Your task to perform on an android device: toggle show notifications on the lock screen Image 0: 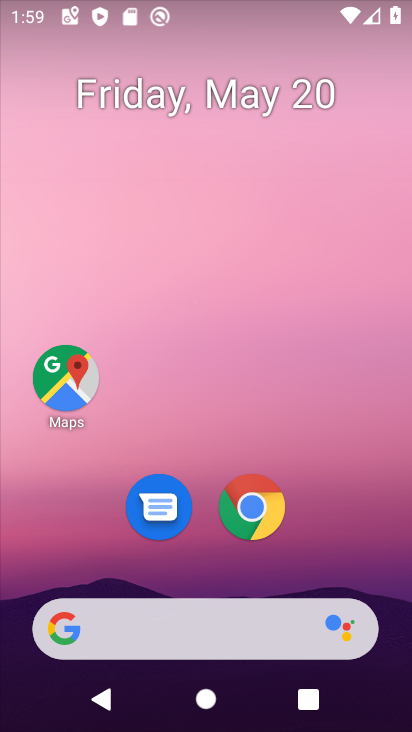
Step 0: drag from (221, 717) to (227, 241)
Your task to perform on an android device: toggle show notifications on the lock screen Image 1: 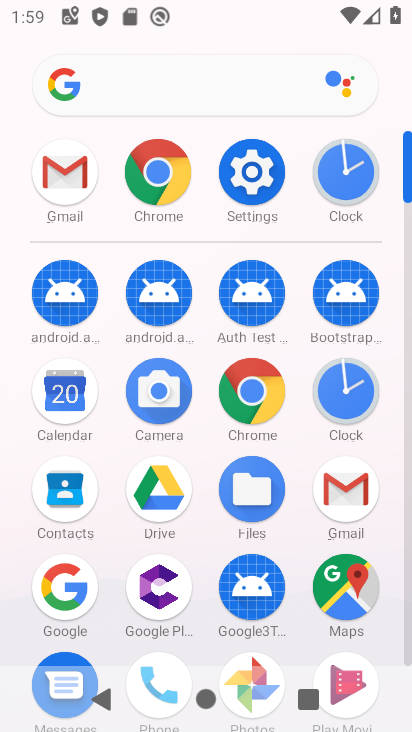
Step 1: click (250, 168)
Your task to perform on an android device: toggle show notifications on the lock screen Image 2: 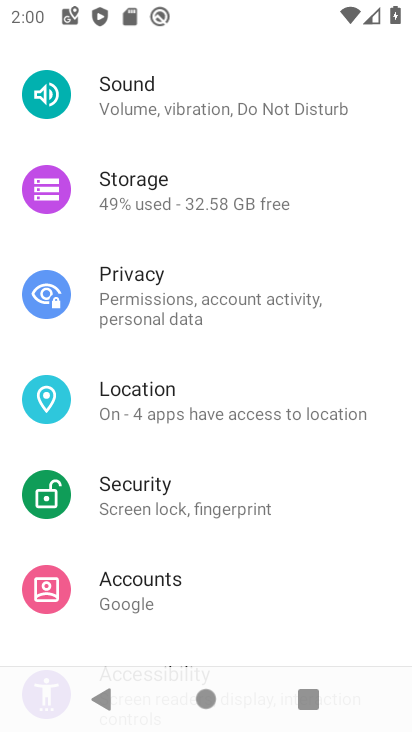
Step 2: drag from (213, 239) to (237, 646)
Your task to perform on an android device: toggle show notifications on the lock screen Image 3: 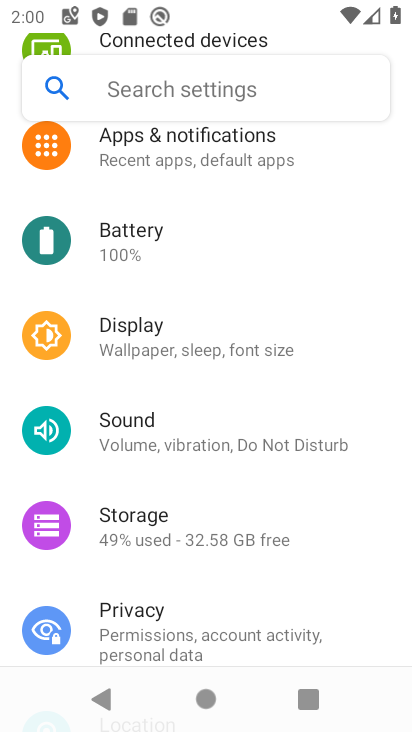
Step 3: click (210, 156)
Your task to perform on an android device: toggle show notifications on the lock screen Image 4: 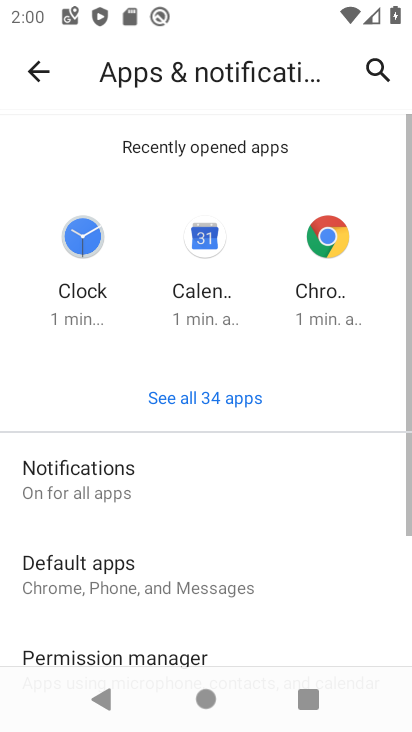
Step 4: click (86, 475)
Your task to perform on an android device: toggle show notifications on the lock screen Image 5: 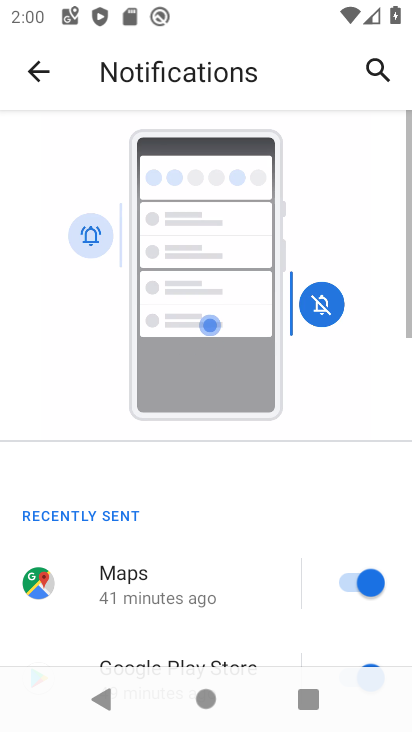
Step 5: drag from (191, 611) to (196, 270)
Your task to perform on an android device: toggle show notifications on the lock screen Image 6: 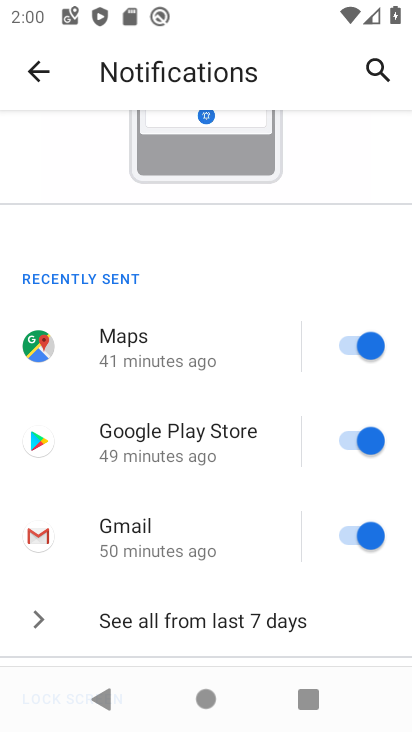
Step 6: drag from (202, 613) to (210, 371)
Your task to perform on an android device: toggle show notifications on the lock screen Image 7: 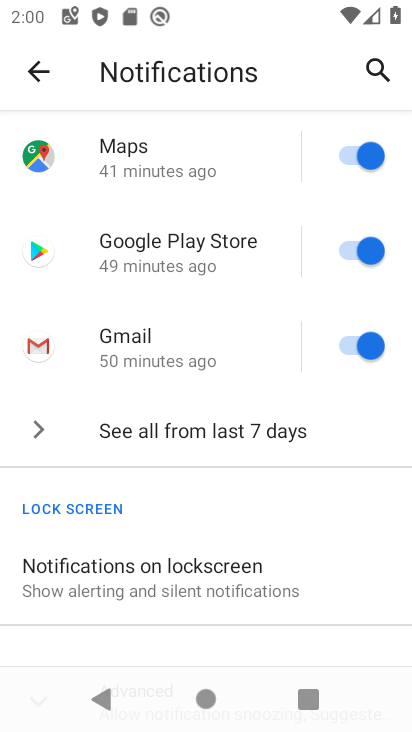
Step 7: click (205, 579)
Your task to perform on an android device: toggle show notifications on the lock screen Image 8: 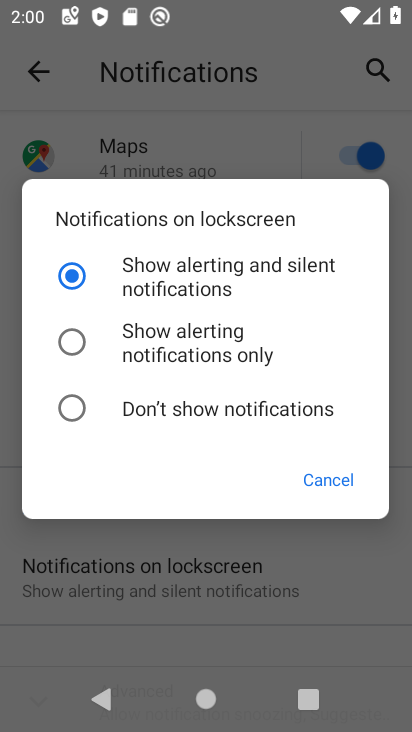
Step 8: click (76, 335)
Your task to perform on an android device: toggle show notifications on the lock screen Image 9: 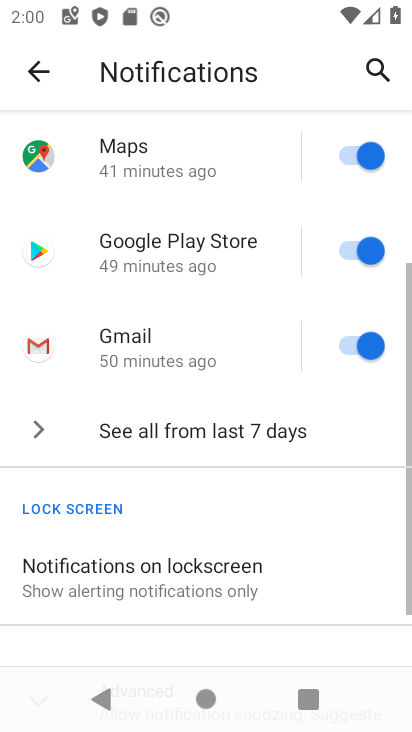
Step 9: task complete